Your task to perform on an android device: Go to calendar. Show me events next week Image 0: 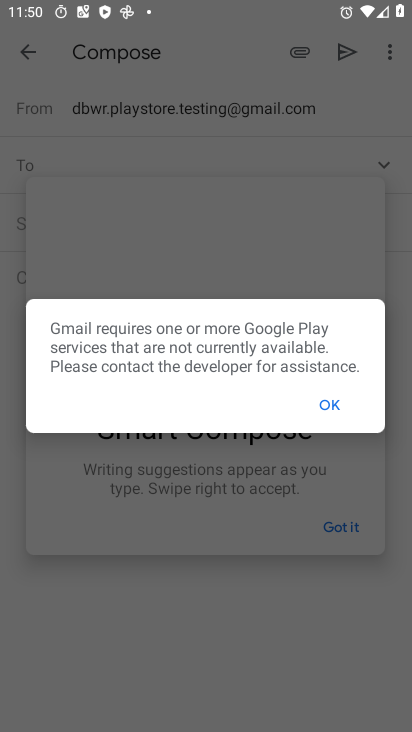
Step 0: press home button
Your task to perform on an android device: Go to calendar. Show me events next week Image 1: 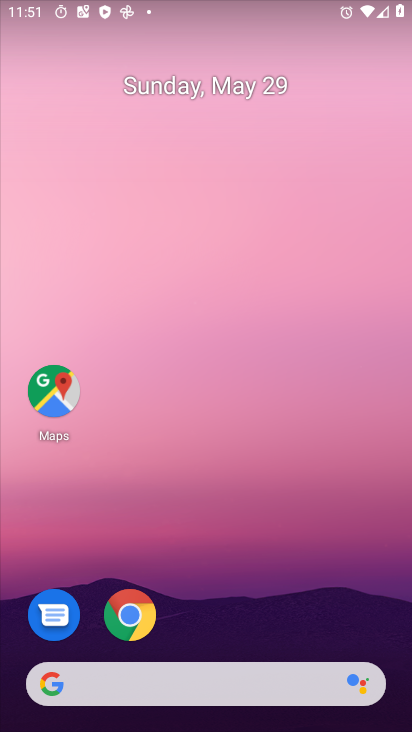
Step 1: drag from (248, 334) to (262, 56)
Your task to perform on an android device: Go to calendar. Show me events next week Image 2: 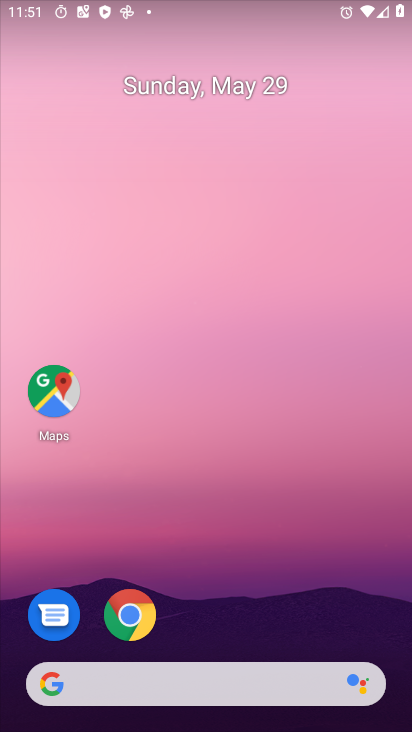
Step 2: drag from (228, 612) to (251, 36)
Your task to perform on an android device: Go to calendar. Show me events next week Image 3: 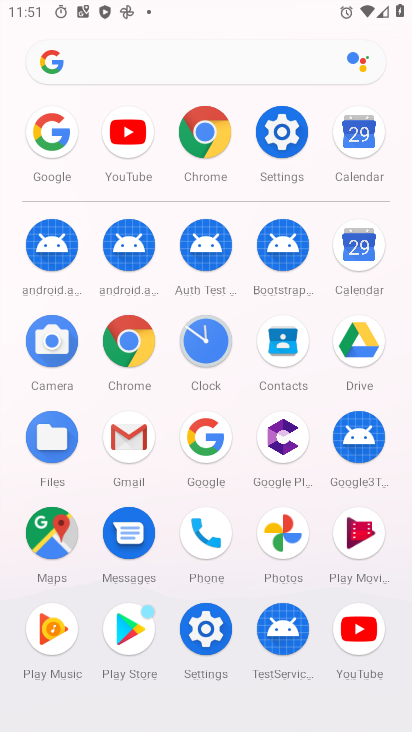
Step 3: click (346, 136)
Your task to perform on an android device: Go to calendar. Show me events next week Image 4: 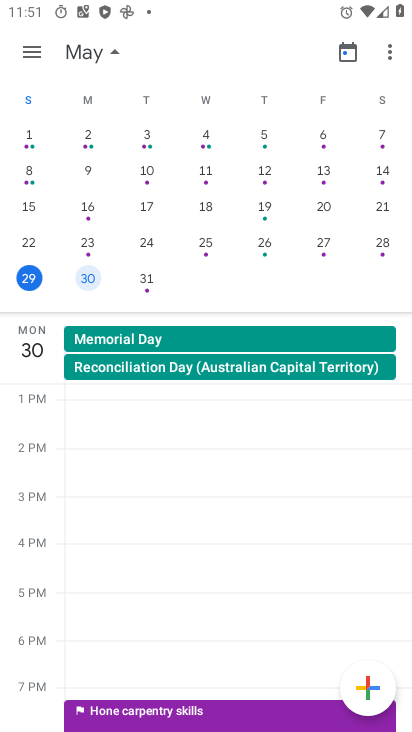
Step 4: click (137, 280)
Your task to perform on an android device: Go to calendar. Show me events next week Image 5: 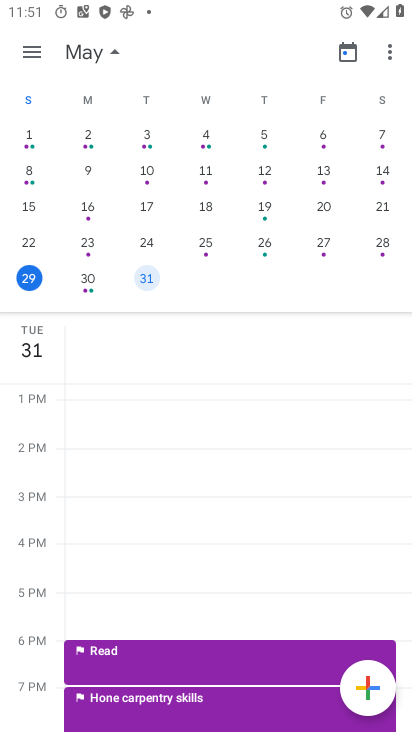
Step 5: task complete